Your task to perform on an android device: empty trash in google photos Image 0: 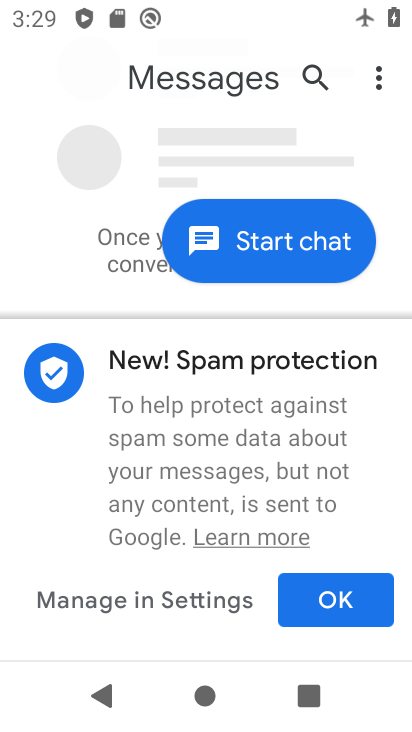
Step 0: press home button
Your task to perform on an android device: empty trash in google photos Image 1: 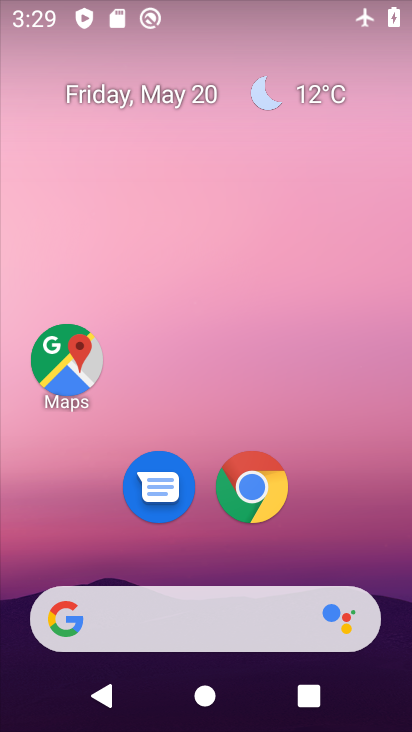
Step 1: drag from (299, 555) to (221, 97)
Your task to perform on an android device: empty trash in google photos Image 2: 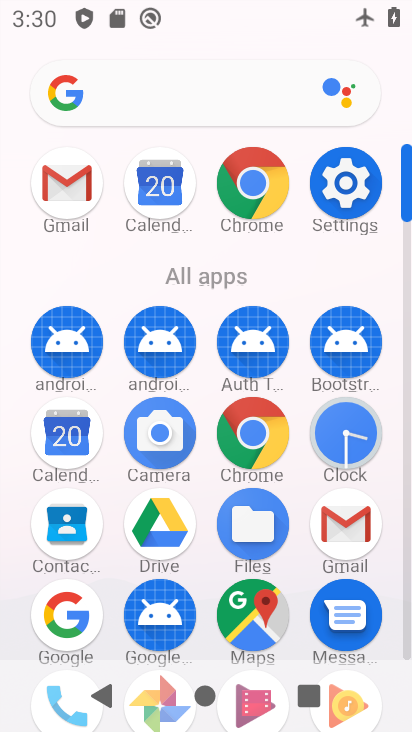
Step 2: drag from (206, 623) to (203, 336)
Your task to perform on an android device: empty trash in google photos Image 3: 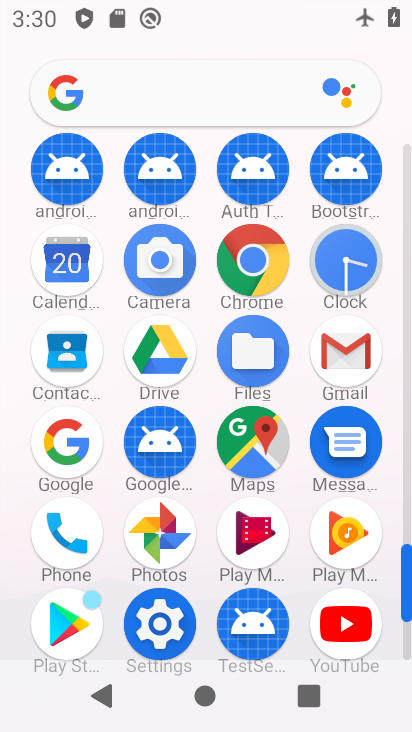
Step 3: click (154, 532)
Your task to perform on an android device: empty trash in google photos Image 4: 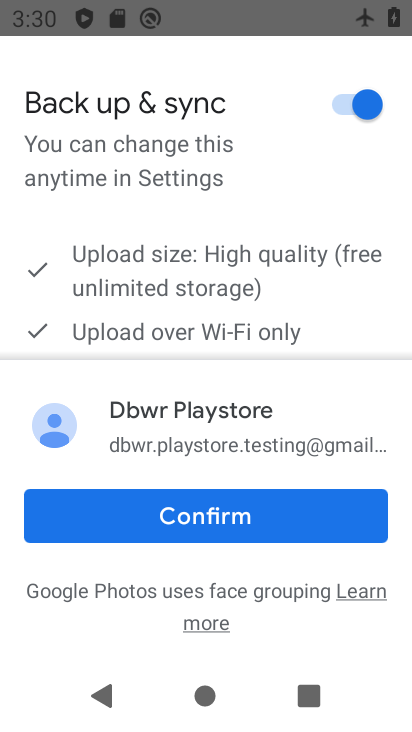
Step 4: click (157, 529)
Your task to perform on an android device: empty trash in google photos Image 5: 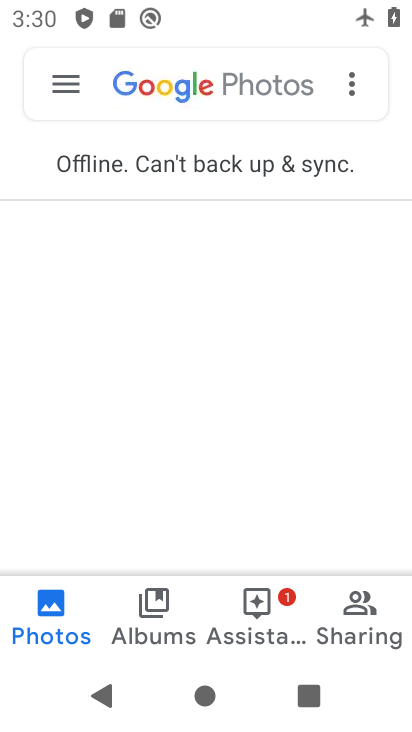
Step 5: click (71, 81)
Your task to perform on an android device: empty trash in google photos Image 6: 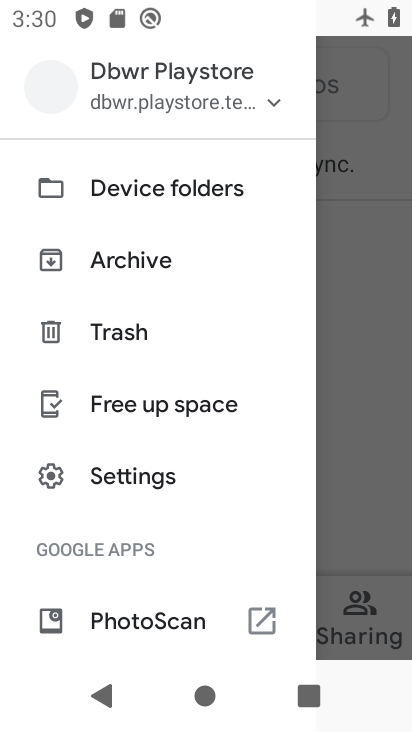
Step 6: click (125, 345)
Your task to perform on an android device: empty trash in google photos Image 7: 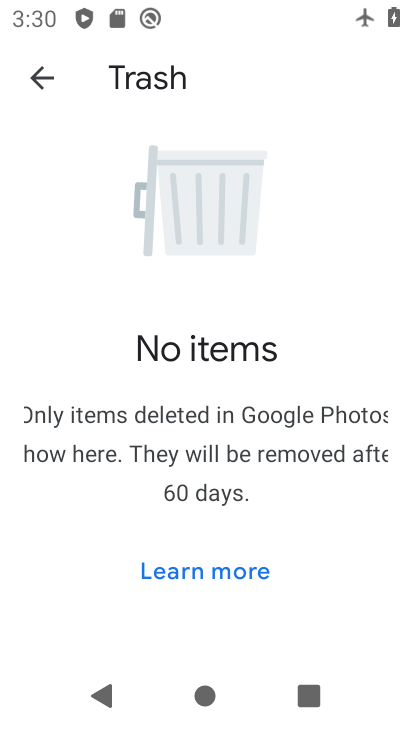
Step 7: task complete